Your task to perform on an android device: check data usage Image 0: 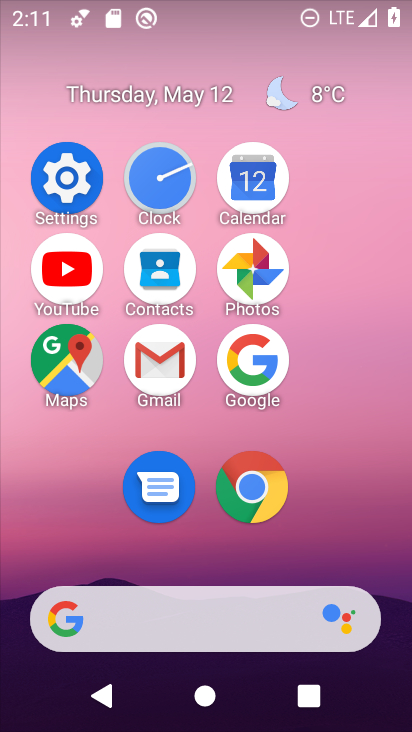
Step 0: click (166, 179)
Your task to perform on an android device: check data usage Image 1: 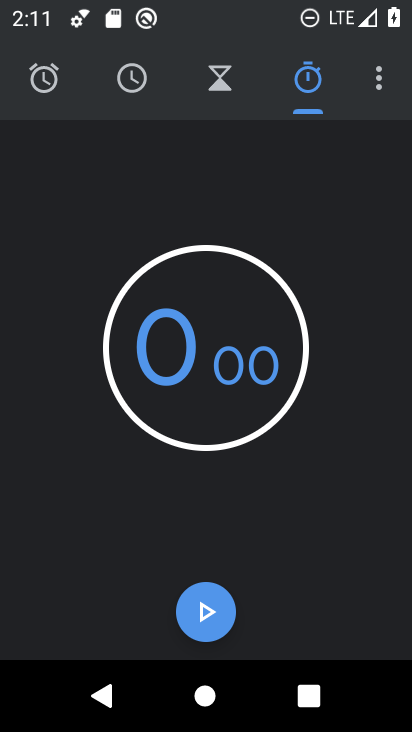
Step 1: click (214, 53)
Your task to perform on an android device: check data usage Image 2: 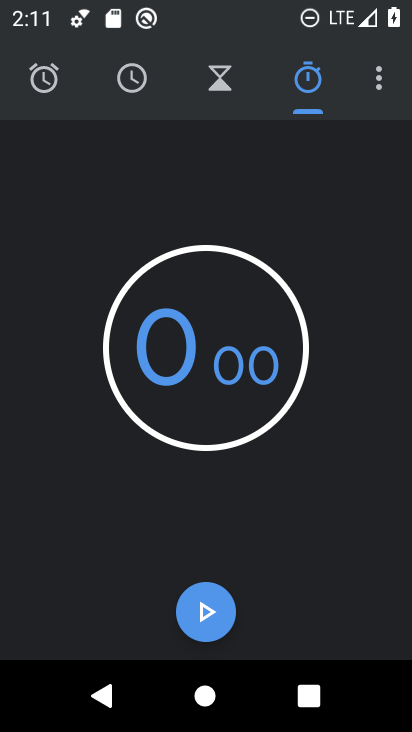
Step 2: click (228, 95)
Your task to perform on an android device: check data usage Image 3: 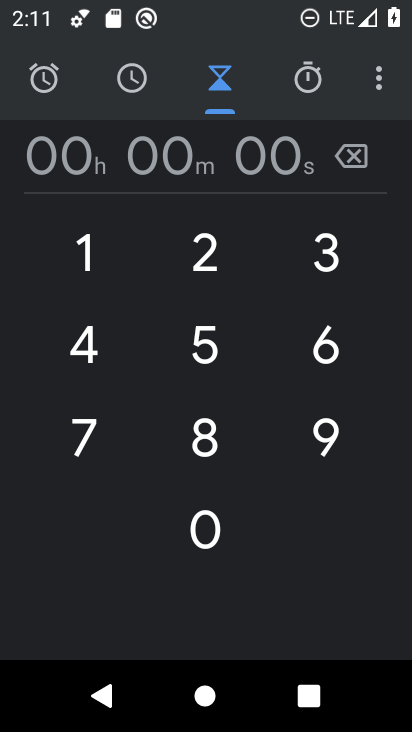
Step 3: click (223, 262)
Your task to perform on an android device: check data usage Image 4: 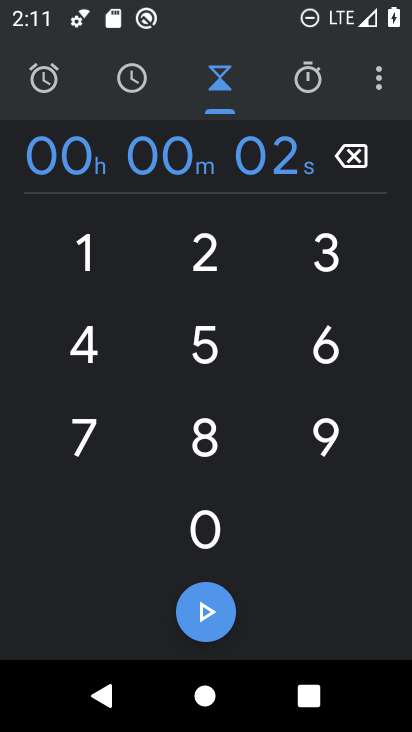
Step 4: click (207, 622)
Your task to perform on an android device: check data usage Image 5: 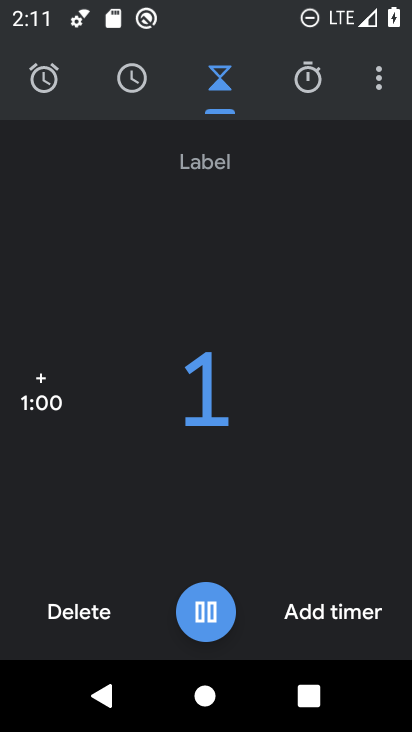
Step 5: task complete